Your task to perform on an android device: toggle javascript in the chrome app Image 0: 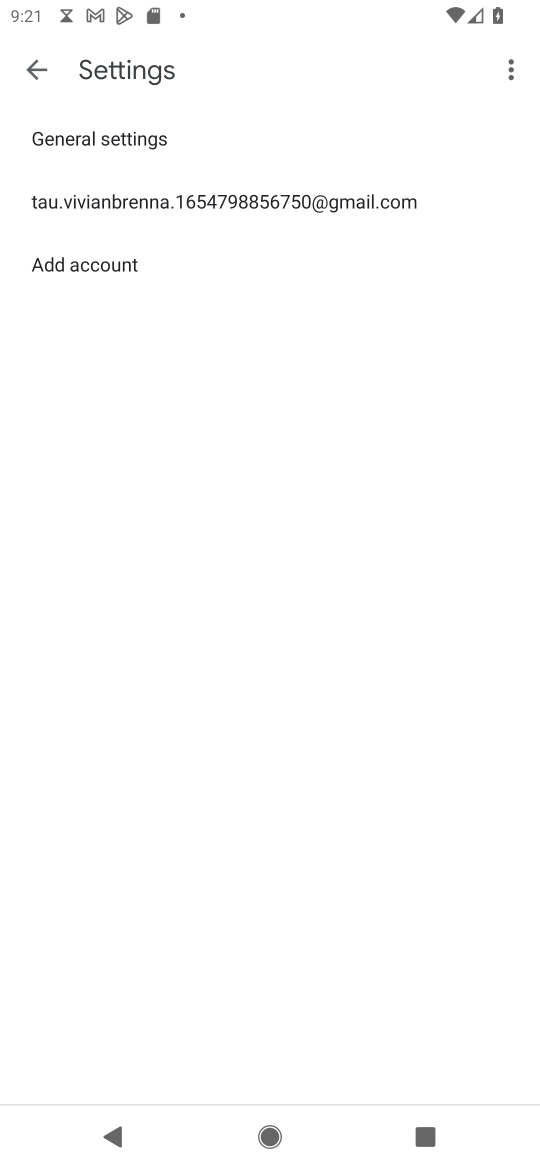
Step 0: press home button
Your task to perform on an android device: toggle javascript in the chrome app Image 1: 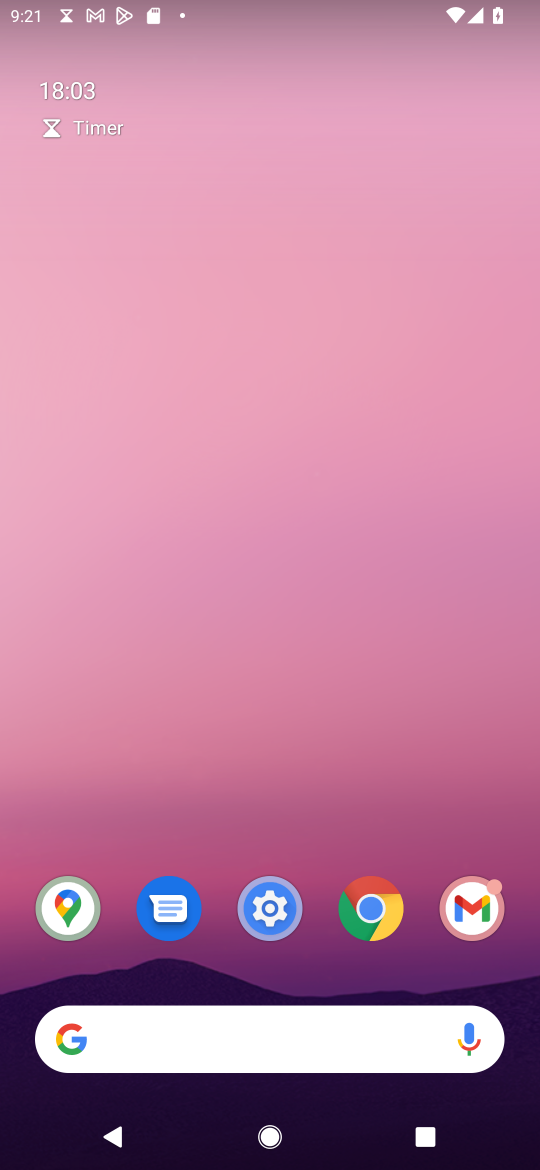
Step 1: click (366, 918)
Your task to perform on an android device: toggle javascript in the chrome app Image 2: 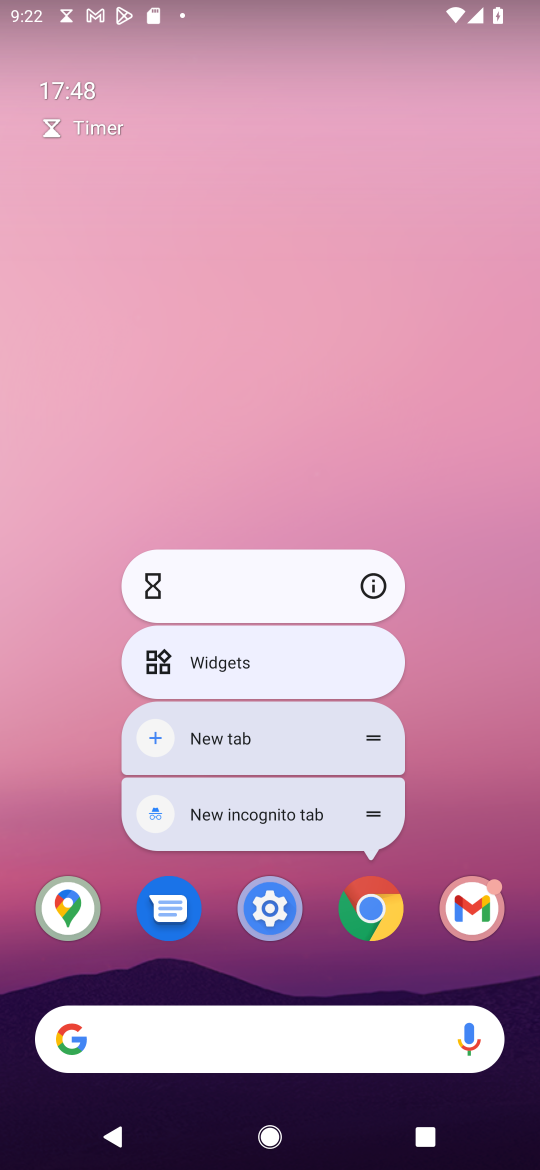
Step 2: click (360, 900)
Your task to perform on an android device: toggle javascript in the chrome app Image 3: 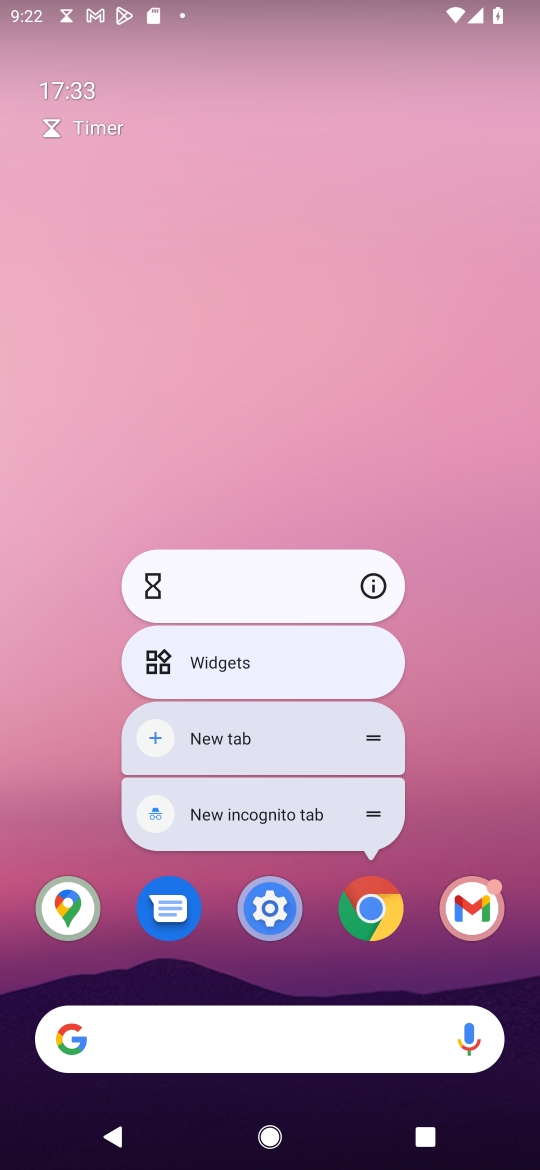
Step 3: click (363, 930)
Your task to perform on an android device: toggle javascript in the chrome app Image 4: 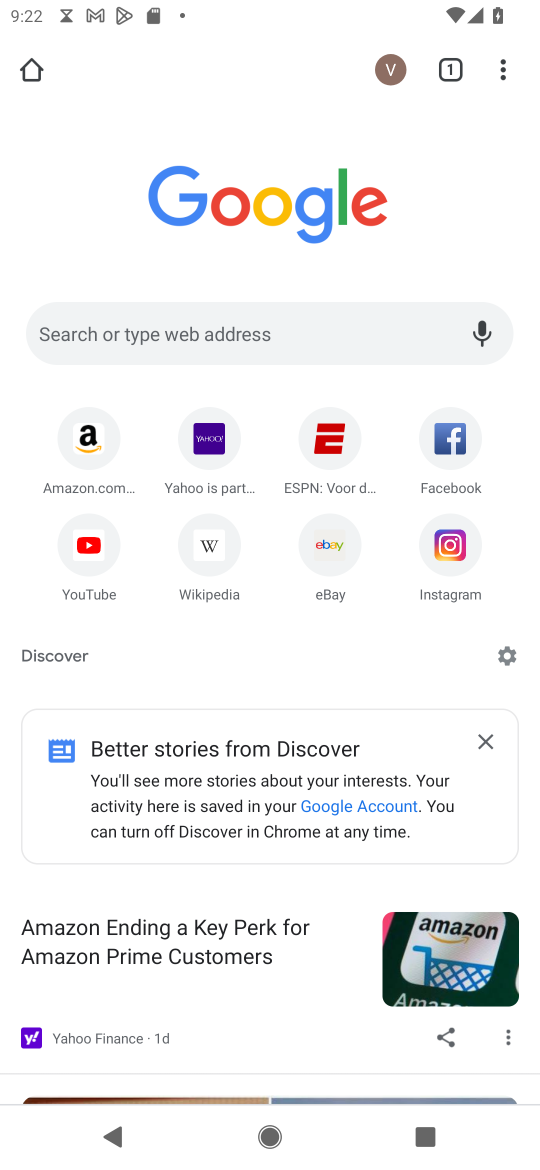
Step 4: click (503, 78)
Your task to perform on an android device: toggle javascript in the chrome app Image 5: 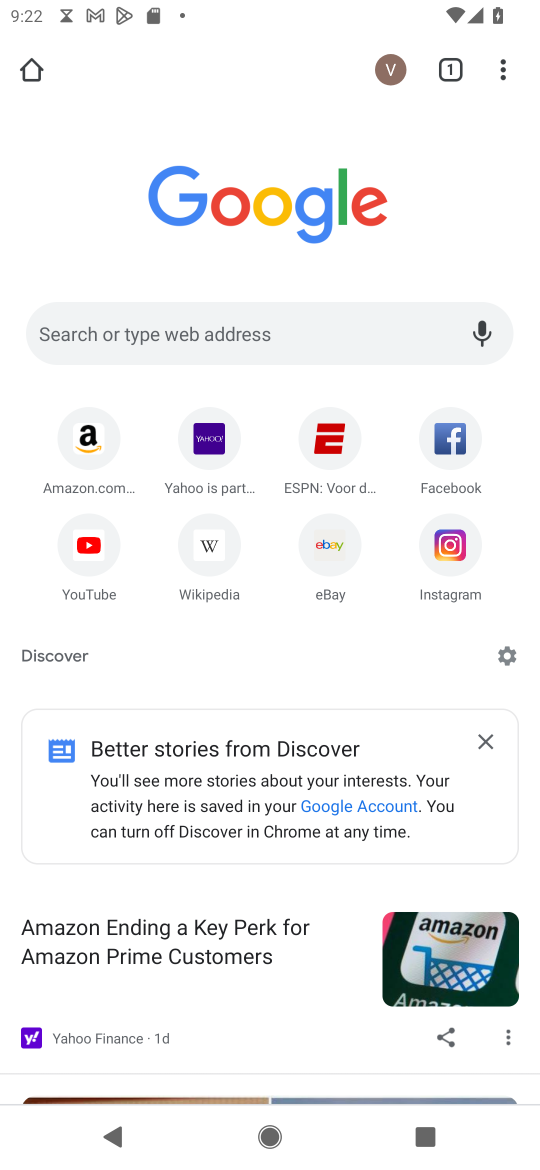
Step 5: drag from (504, 75) to (323, 707)
Your task to perform on an android device: toggle javascript in the chrome app Image 6: 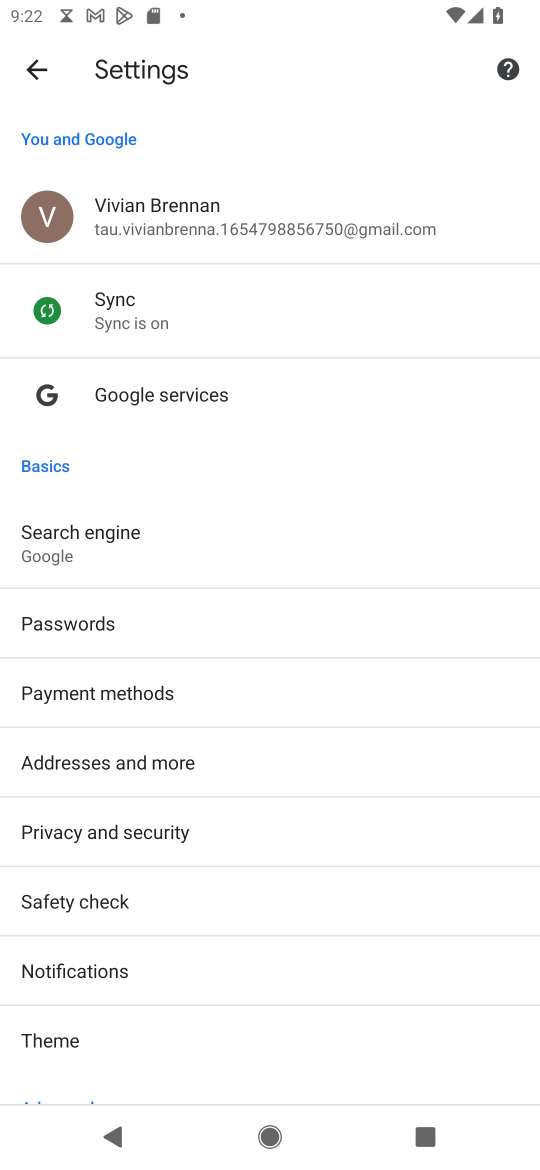
Step 6: drag from (140, 945) to (302, 113)
Your task to perform on an android device: toggle javascript in the chrome app Image 7: 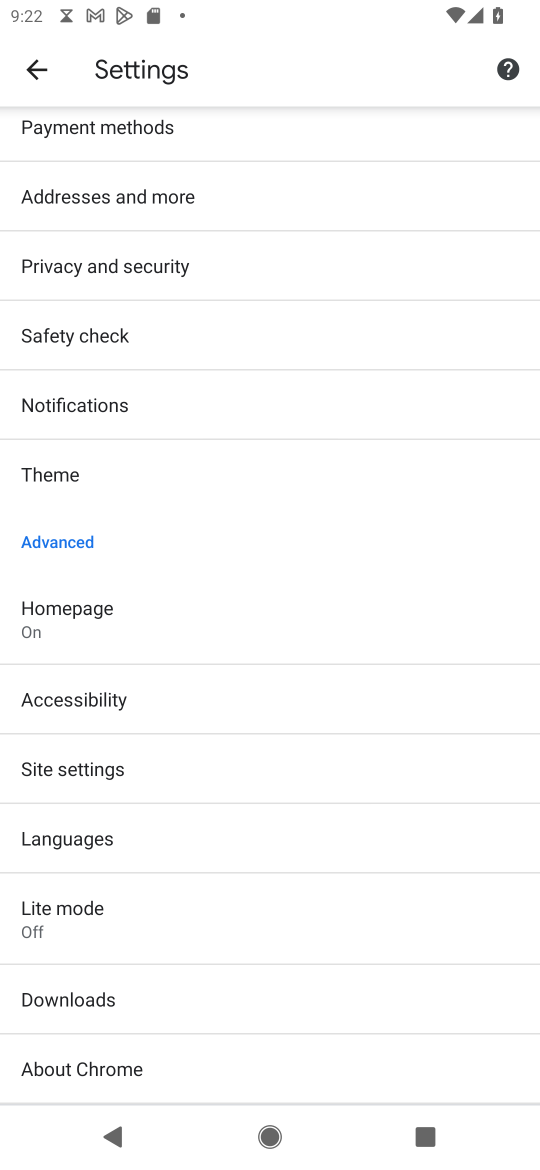
Step 7: click (112, 774)
Your task to perform on an android device: toggle javascript in the chrome app Image 8: 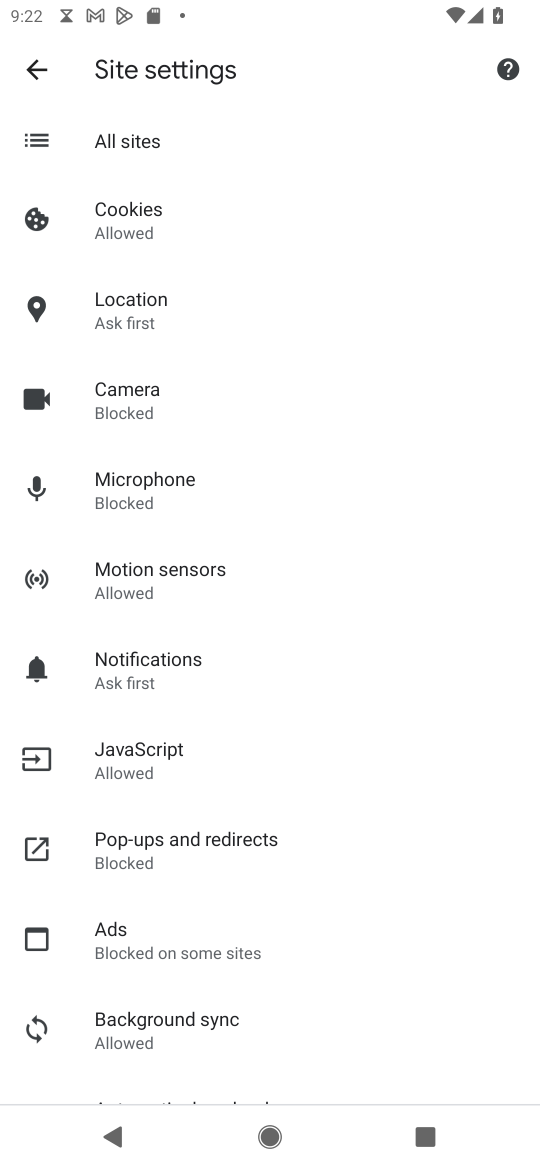
Step 8: click (203, 748)
Your task to perform on an android device: toggle javascript in the chrome app Image 9: 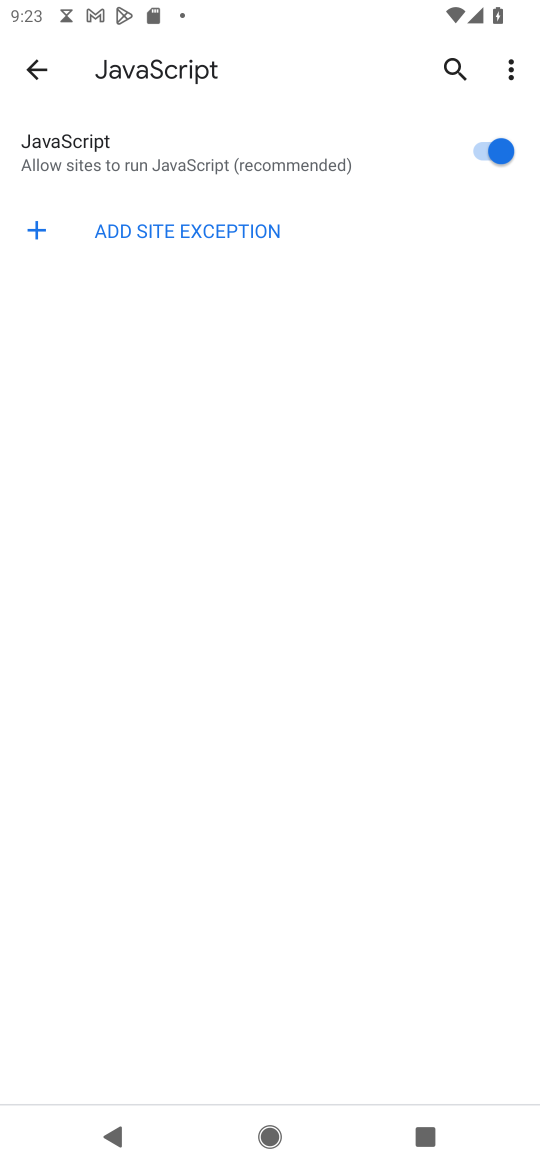
Step 9: click (495, 152)
Your task to perform on an android device: toggle javascript in the chrome app Image 10: 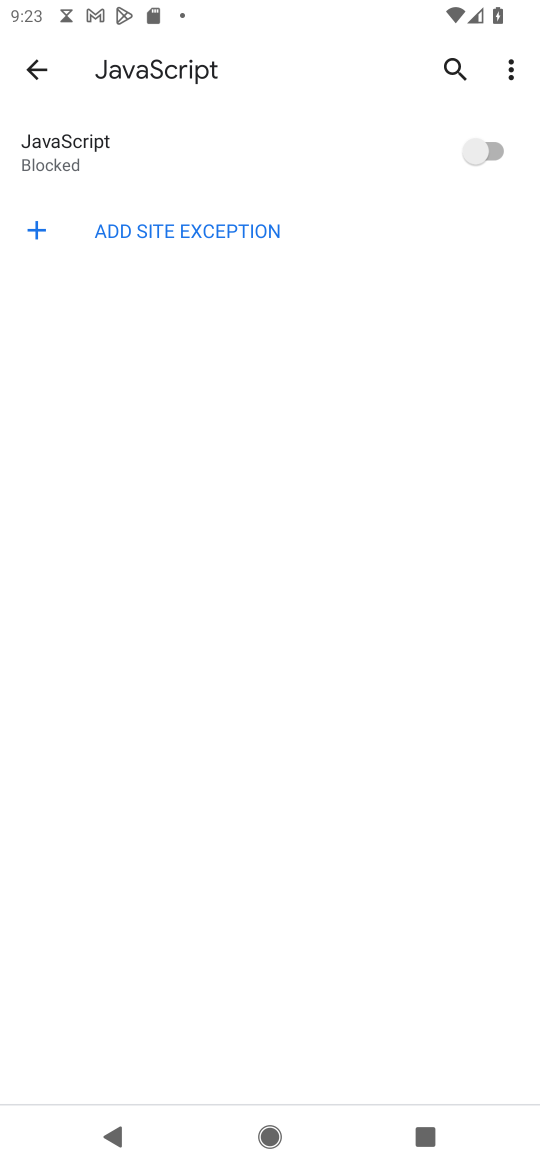
Step 10: task complete